Your task to perform on an android device: Go to display settings Image 0: 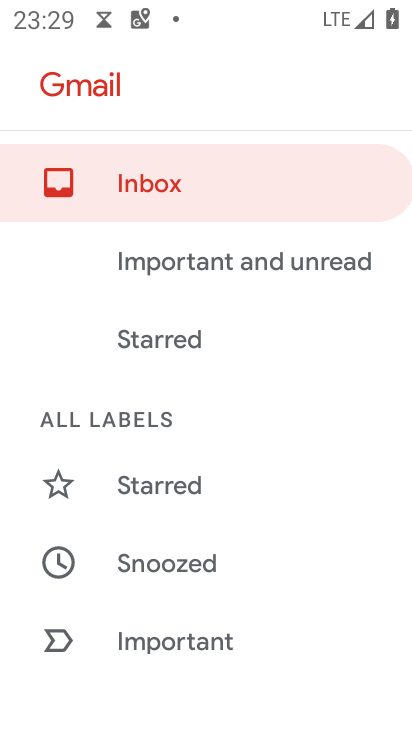
Step 0: press home button
Your task to perform on an android device: Go to display settings Image 1: 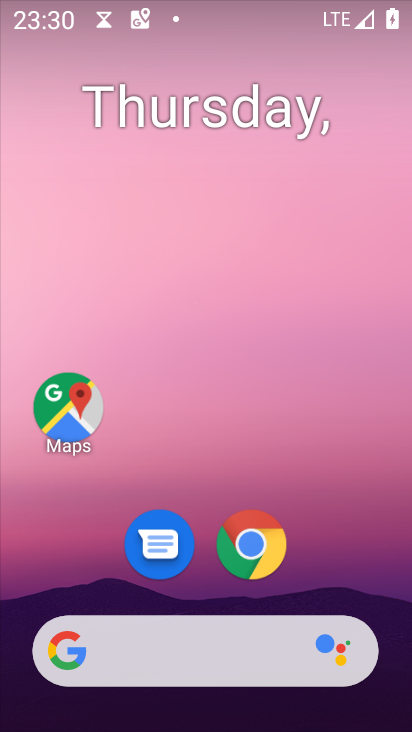
Step 1: drag from (298, 515) to (143, 231)
Your task to perform on an android device: Go to display settings Image 2: 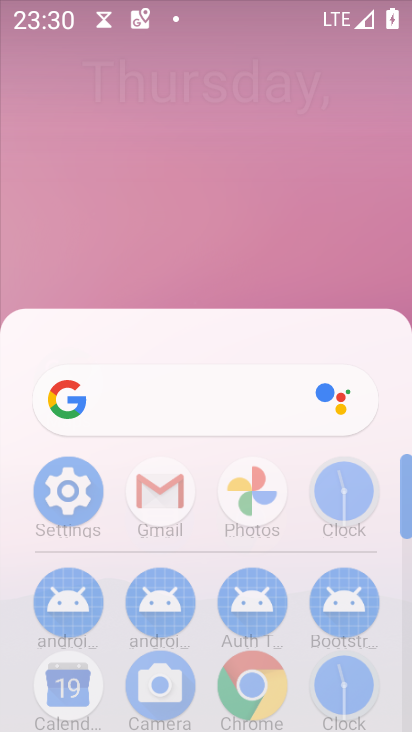
Step 2: click (128, 148)
Your task to perform on an android device: Go to display settings Image 3: 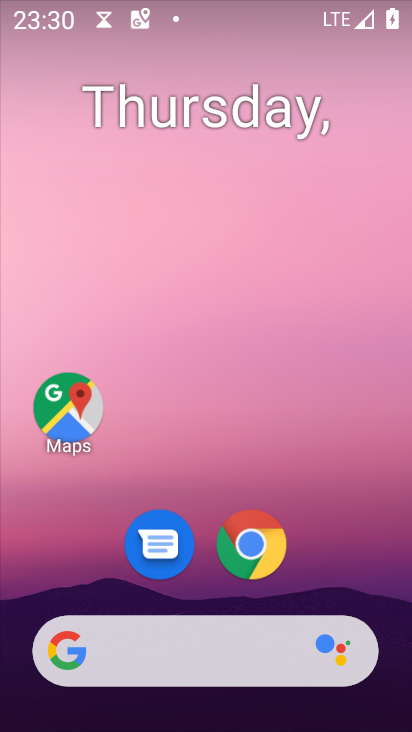
Step 3: drag from (322, 572) to (70, 106)
Your task to perform on an android device: Go to display settings Image 4: 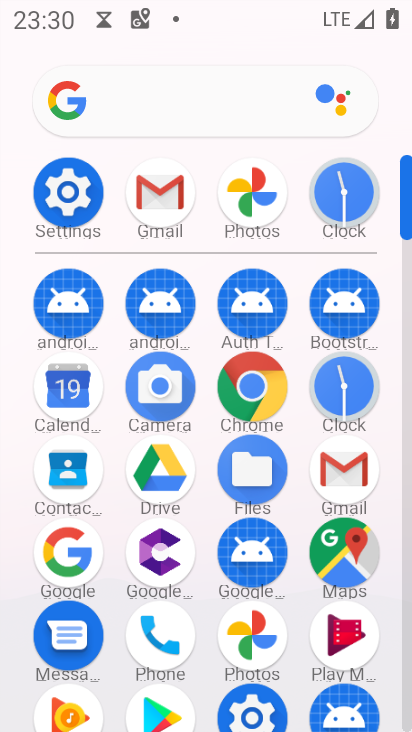
Step 4: click (265, 712)
Your task to perform on an android device: Go to display settings Image 5: 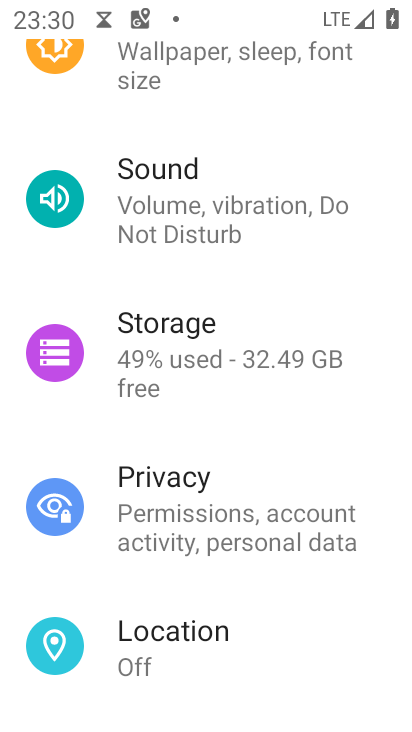
Step 5: drag from (217, 679) to (221, 302)
Your task to perform on an android device: Go to display settings Image 6: 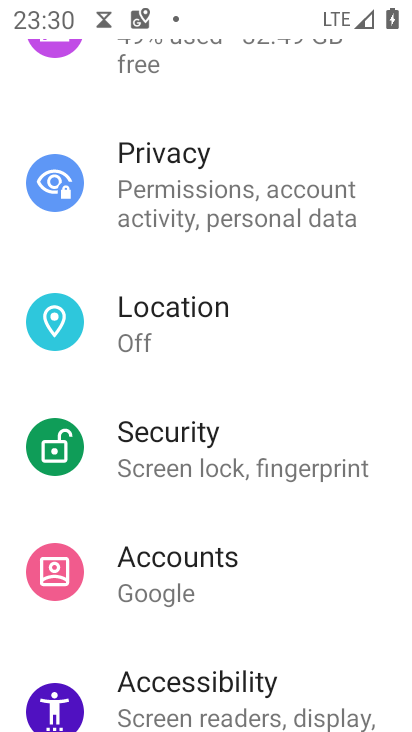
Step 6: drag from (222, 184) to (181, 575)
Your task to perform on an android device: Go to display settings Image 7: 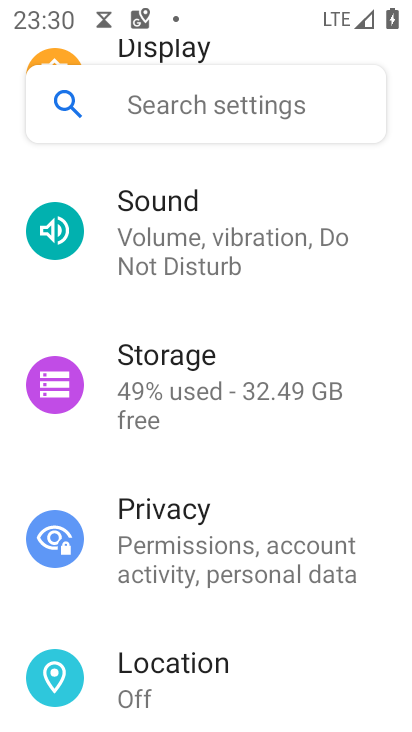
Step 7: drag from (236, 261) to (179, 601)
Your task to perform on an android device: Go to display settings Image 8: 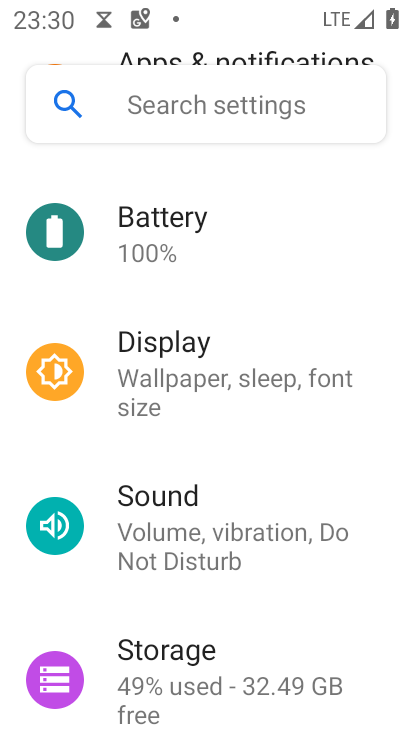
Step 8: click (153, 382)
Your task to perform on an android device: Go to display settings Image 9: 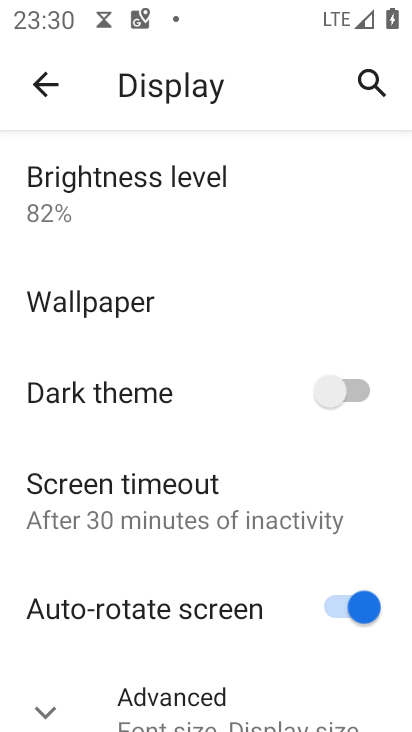
Step 9: click (177, 712)
Your task to perform on an android device: Go to display settings Image 10: 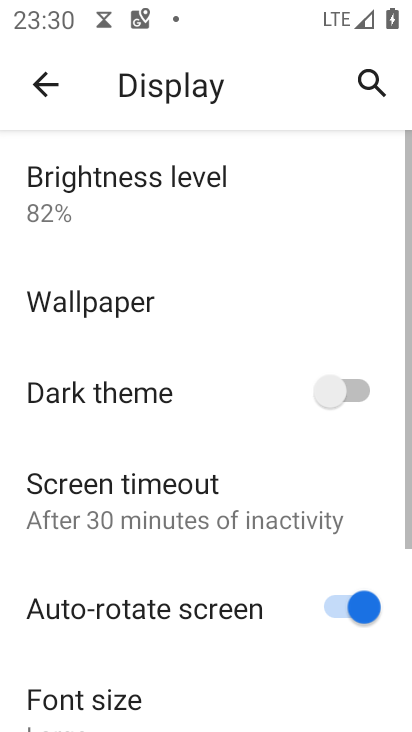
Step 10: task complete